Your task to perform on an android device: What is the recent news? Image 0: 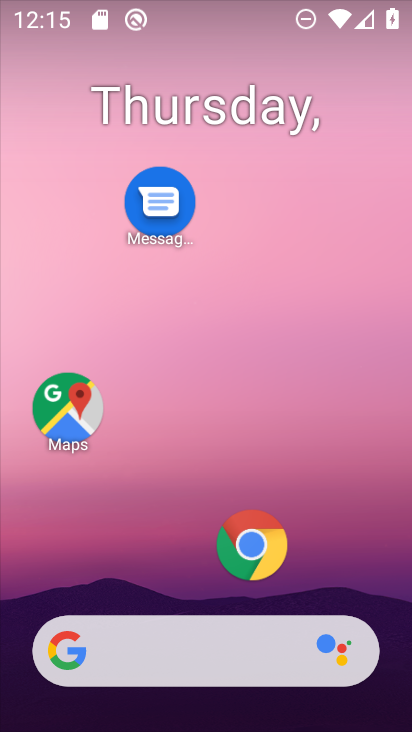
Step 0: drag from (195, 599) to (156, 206)
Your task to perform on an android device: What is the recent news? Image 1: 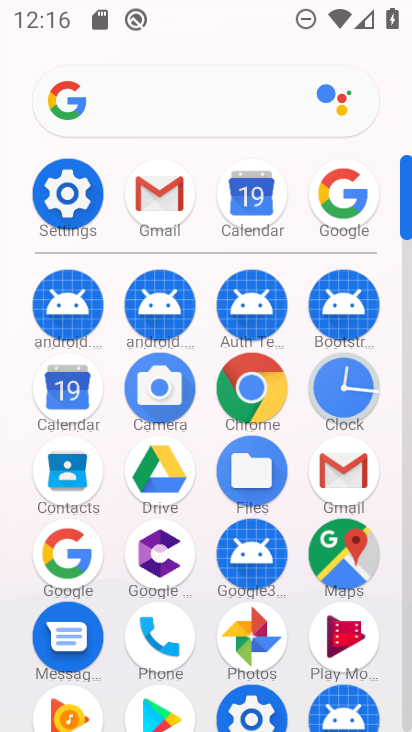
Step 1: click (54, 579)
Your task to perform on an android device: What is the recent news? Image 2: 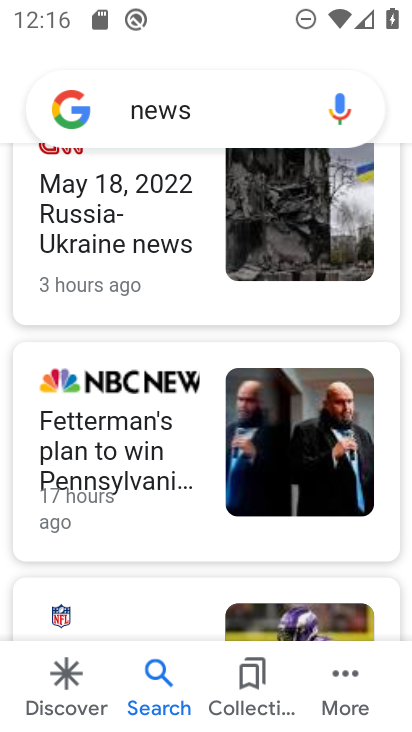
Step 2: task complete